Your task to perform on an android device: open app "Duolingo: language lessons" Image 0: 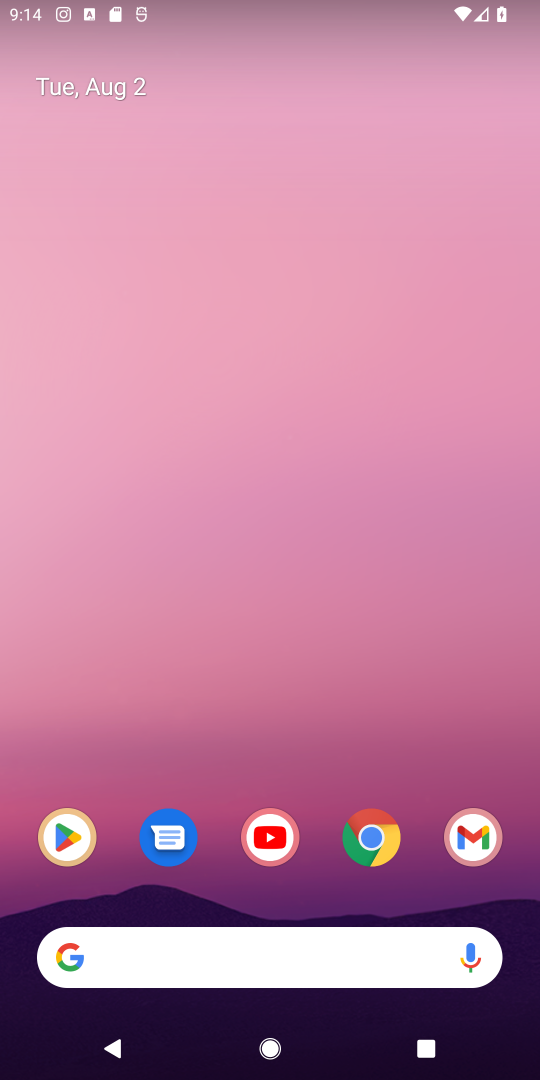
Step 0: click (35, 836)
Your task to perform on an android device: open app "Duolingo: language lessons" Image 1: 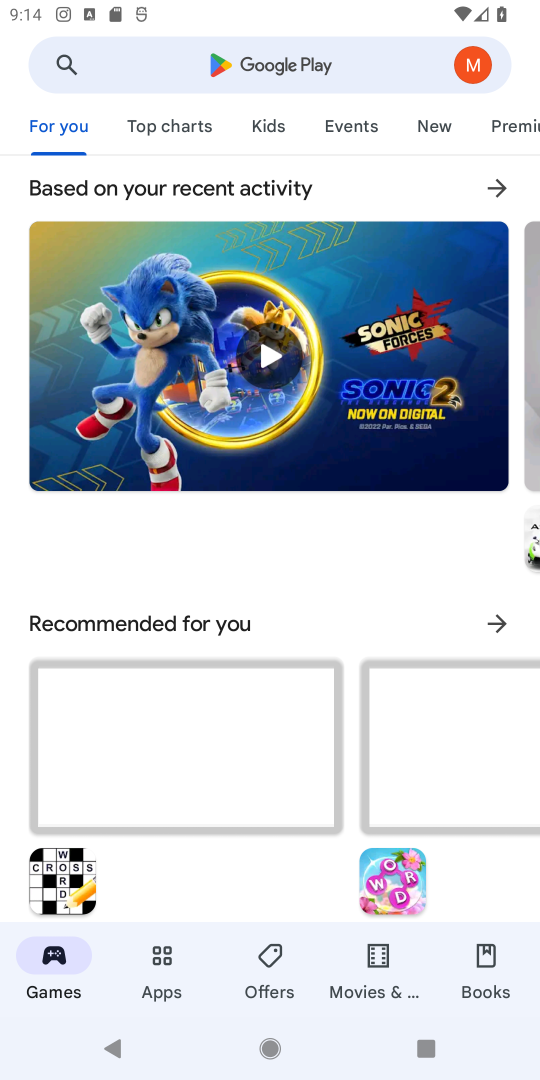
Step 1: click (155, 63)
Your task to perform on an android device: open app "Duolingo: language lessons" Image 2: 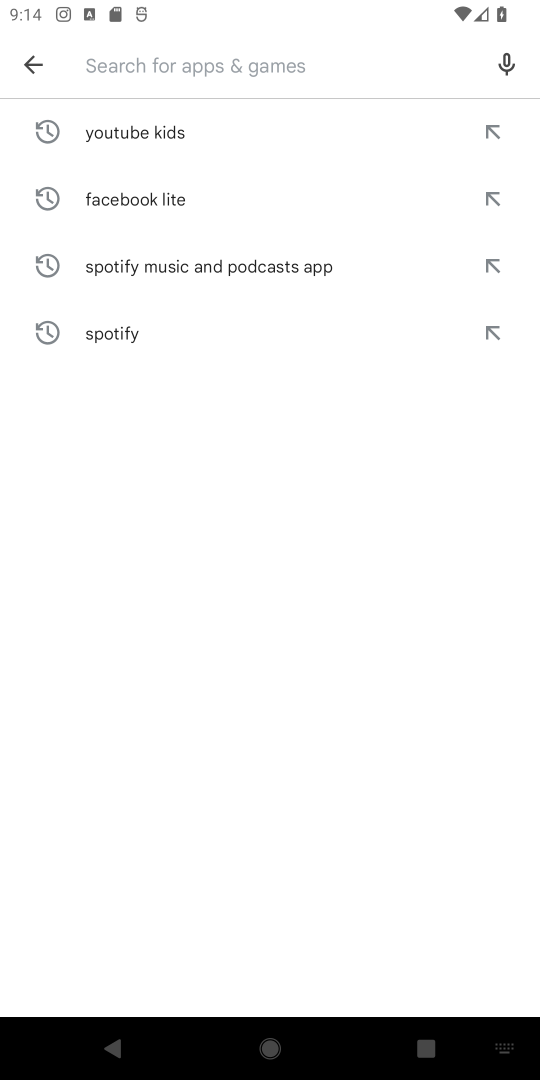
Step 2: type "Duolingo: language lessons"
Your task to perform on an android device: open app "Duolingo: language lessons" Image 3: 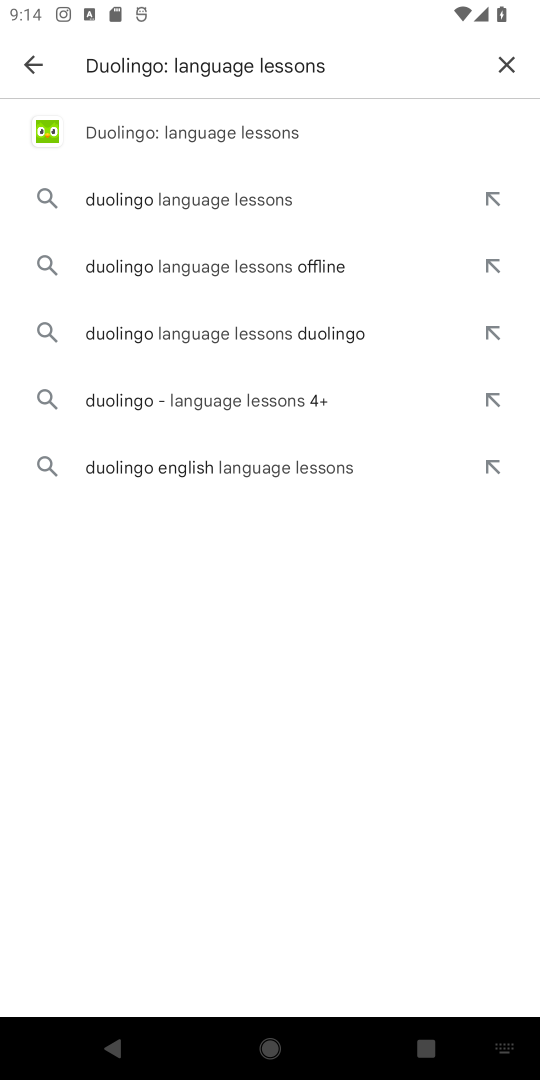
Step 3: click (155, 143)
Your task to perform on an android device: open app "Duolingo: language lessons" Image 4: 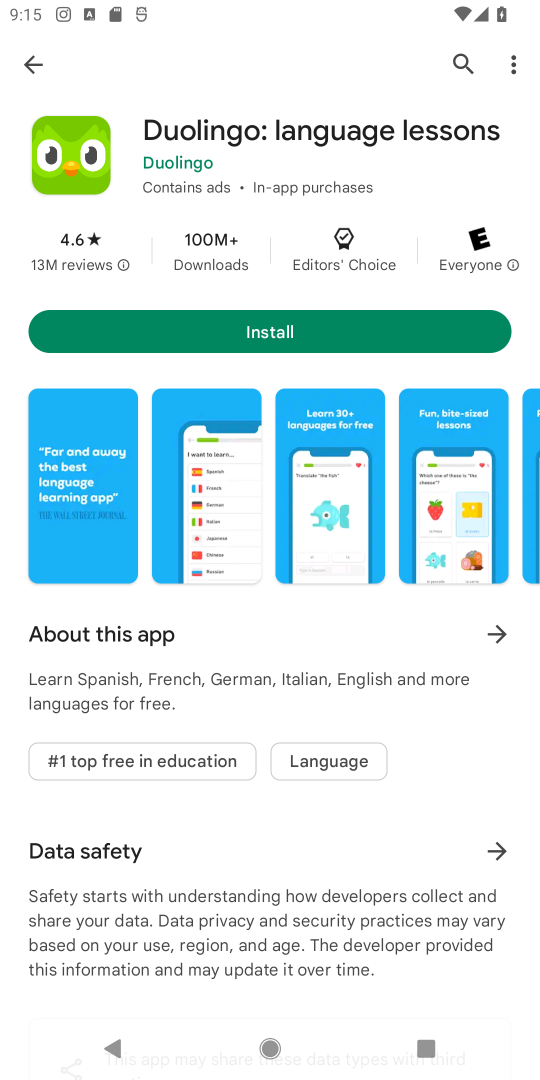
Step 4: task complete